Your task to perform on an android device: change your default location settings in chrome Image 0: 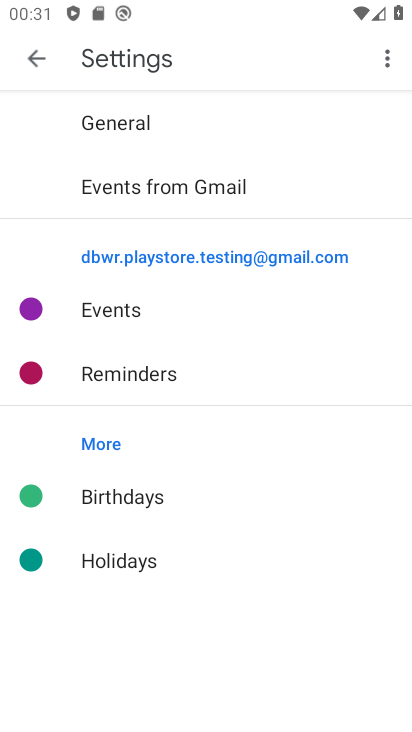
Step 0: press back button
Your task to perform on an android device: change your default location settings in chrome Image 1: 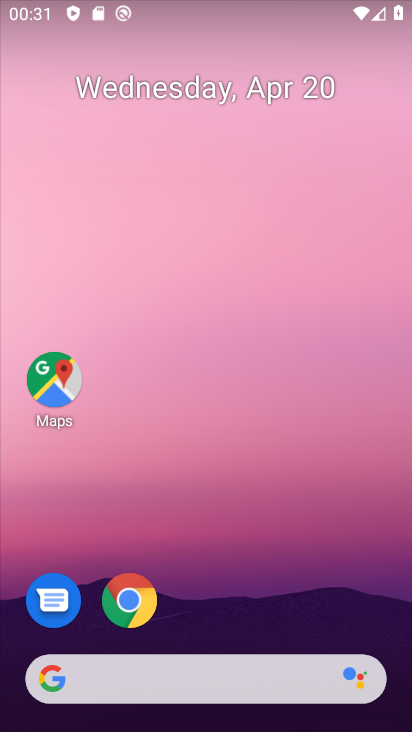
Step 1: drag from (255, 552) to (233, 30)
Your task to perform on an android device: change your default location settings in chrome Image 2: 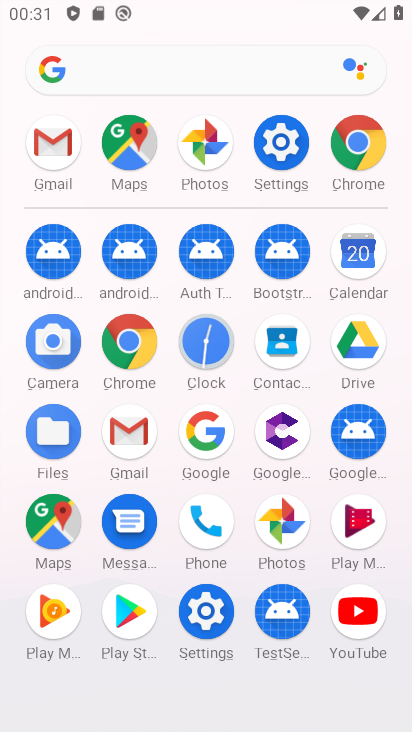
Step 2: click (129, 334)
Your task to perform on an android device: change your default location settings in chrome Image 3: 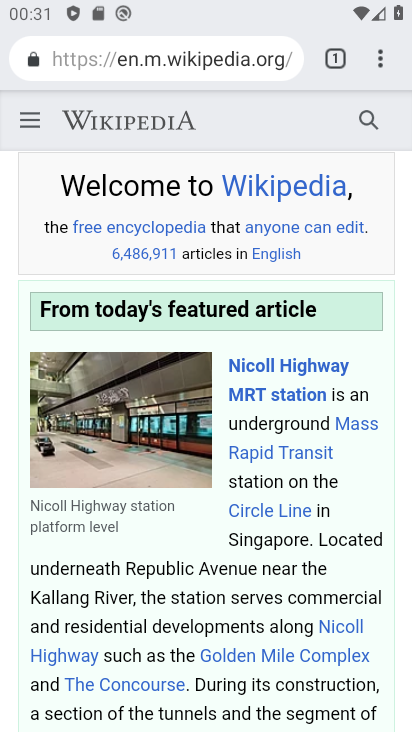
Step 3: drag from (378, 64) to (198, 627)
Your task to perform on an android device: change your default location settings in chrome Image 4: 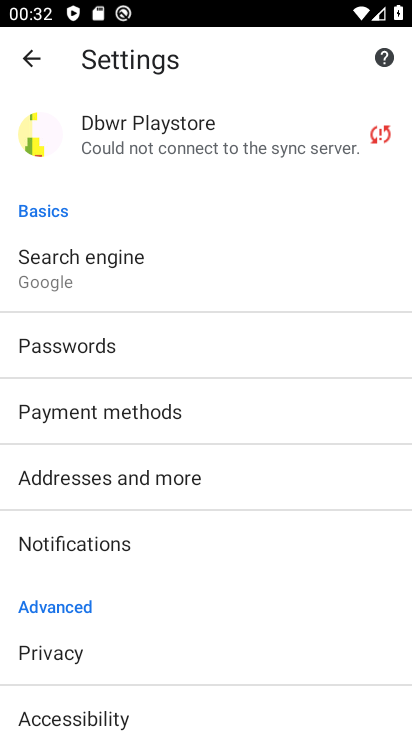
Step 4: drag from (242, 532) to (236, 209)
Your task to perform on an android device: change your default location settings in chrome Image 5: 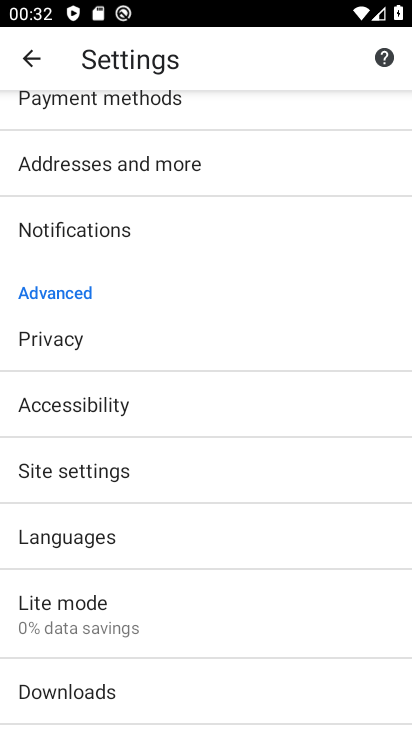
Step 5: drag from (243, 573) to (260, 258)
Your task to perform on an android device: change your default location settings in chrome Image 6: 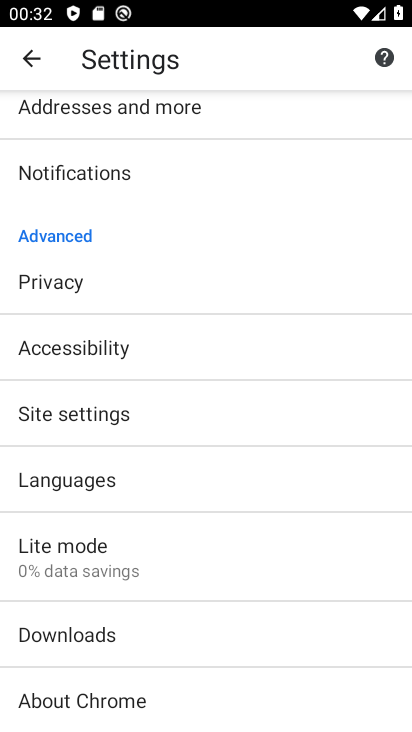
Step 6: drag from (207, 573) to (201, 243)
Your task to perform on an android device: change your default location settings in chrome Image 7: 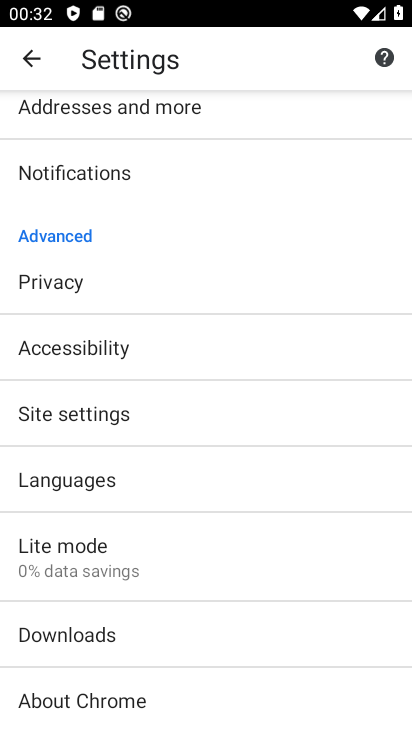
Step 7: click (128, 418)
Your task to perform on an android device: change your default location settings in chrome Image 8: 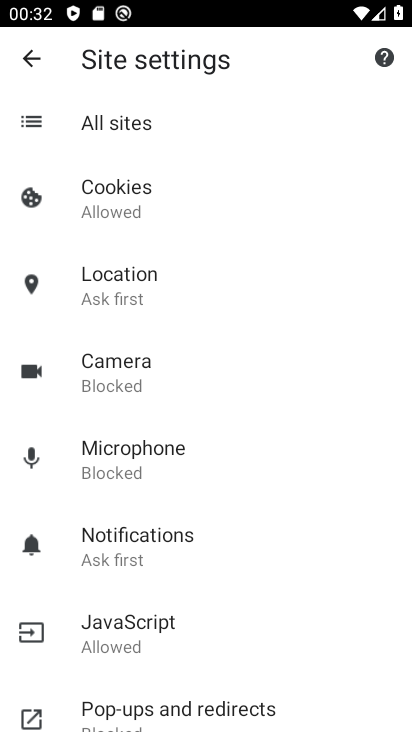
Step 8: click (171, 284)
Your task to perform on an android device: change your default location settings in chrome Image 9: 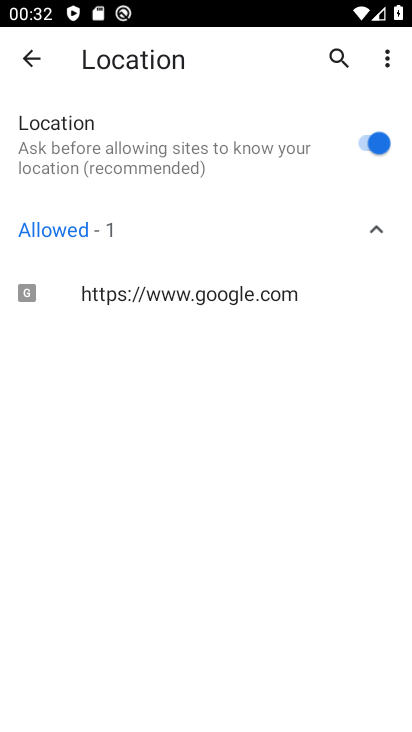
Step 9: click (393, 141)
Your task to perform on an android device: change your default location settings in chrome Image 10: 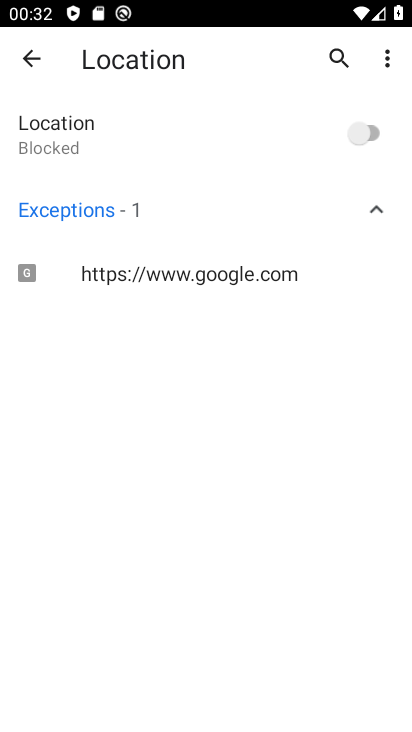
Step 10: task complete